Your task to perform on an android device: Do I have any events this weekend? Image 0: 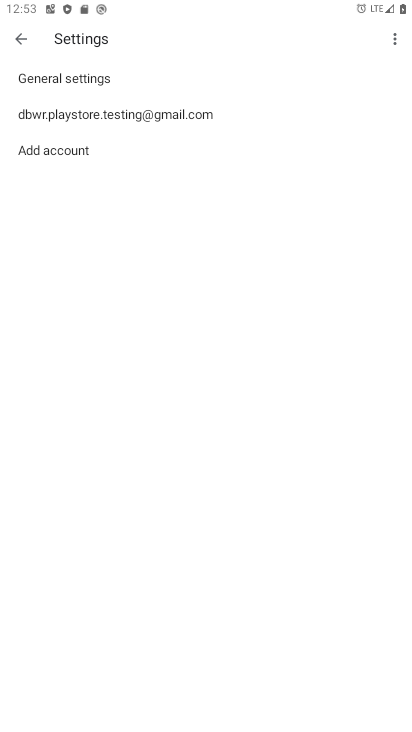
Step 0: press home button
Your task to perform on an android device: Do I have any events this weekend? Image 1: 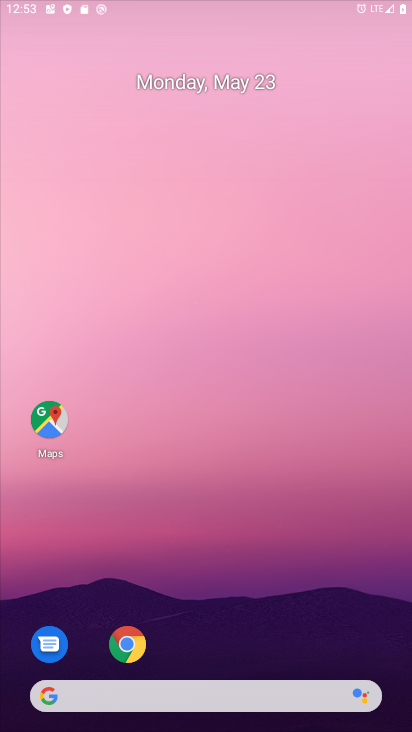
Step 1: drag from (402, 658) to (226, 66)
Your task to perform on an android device: Do I have any events this weekend? Image 2: 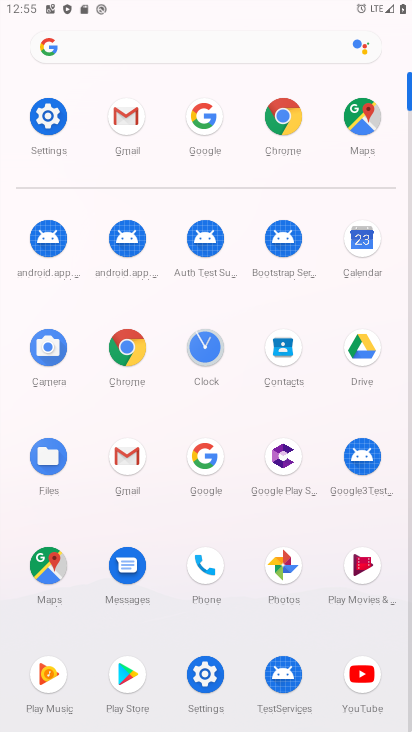
Step 2: click (347, 251)
Your task to perform on an android device: Do I have any events this weekend? Image 3: 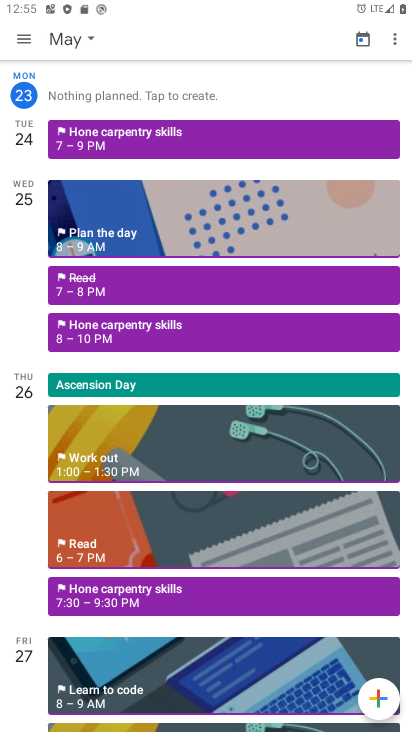
Step 3: task complete